Your task to perform on an android device: open a bookmark in the chrome app Image 0: 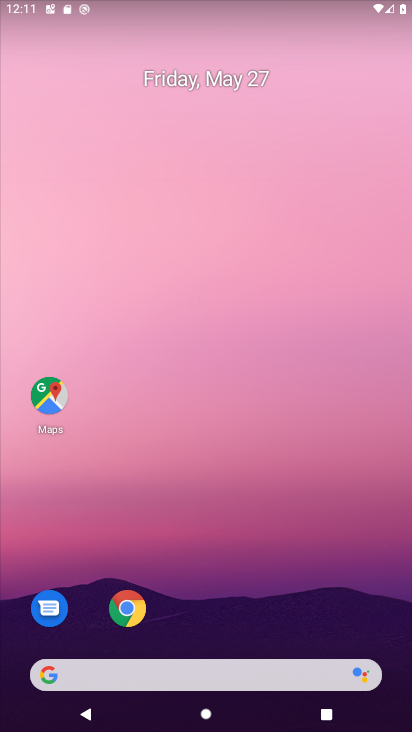
Step 0: click (130, 612)
Your task to perform on an android device: open a bookmark in the chrome app Image 1: 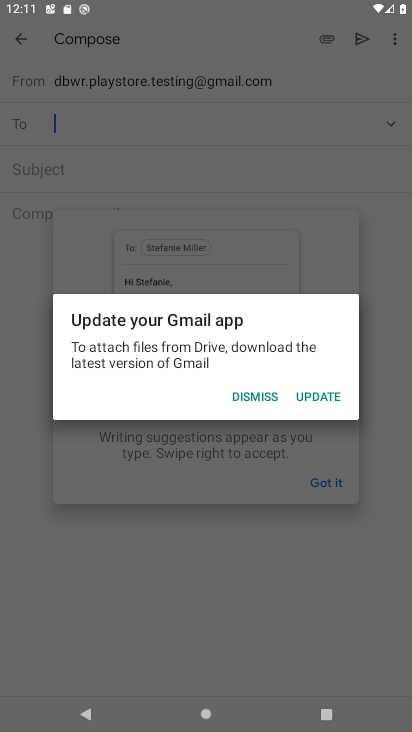
Step 1: press home button
Your task to perform on an android device: open a bookmark in the chrome app Image 2: 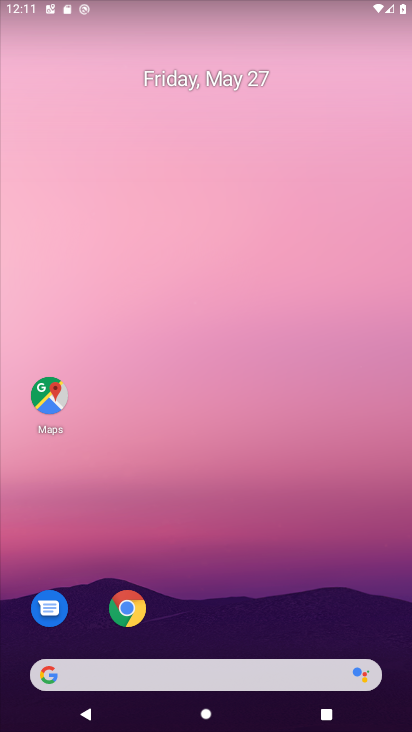
Step 2: click (132, 598)
Your task to perform on an android device: open a bookmark in the chrome app Image 3: 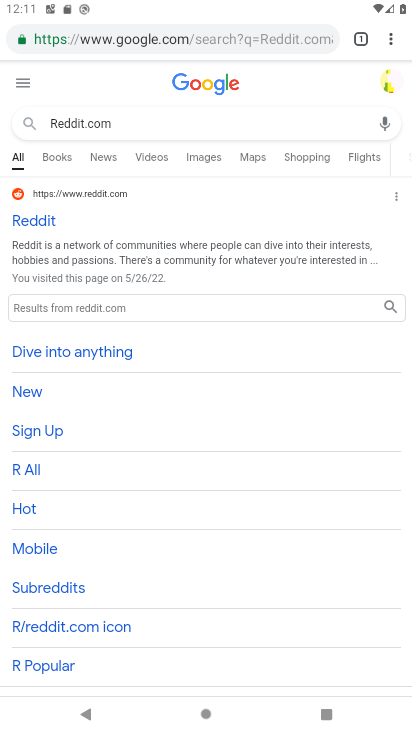
Step 3: click (388, 30)
Your task to perform on an android device: open a bookmark in the chrome app Image 4: 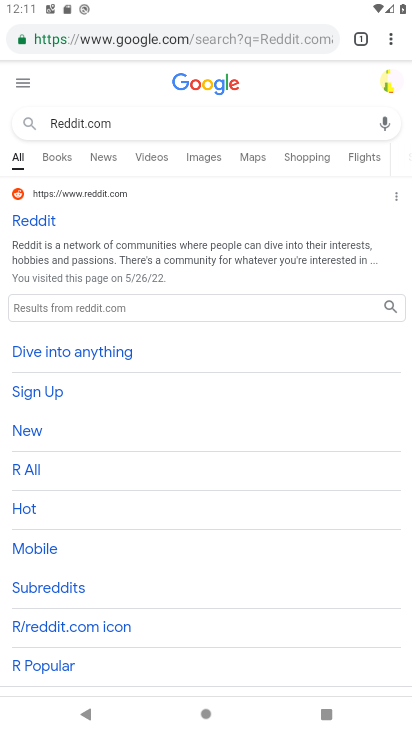
Step 4: click (392, 37)
Your task to perform on an android device: open a bookmark in the chrome app Image 5: 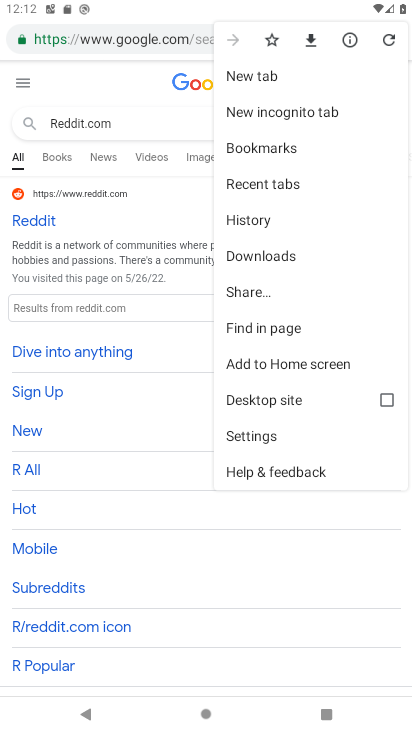
Step 5: click (265, 143)
Your task to perform on an android device: open a bookmark in the chrome app Image 6: 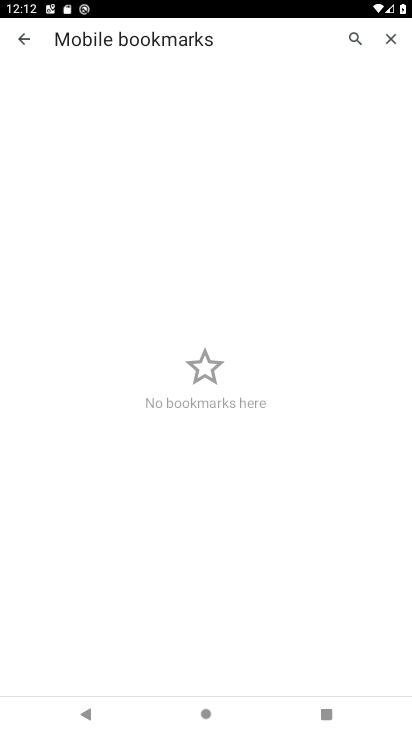
Step 6: task complete